Your task to perform on an android device: change the clock style Image 0: 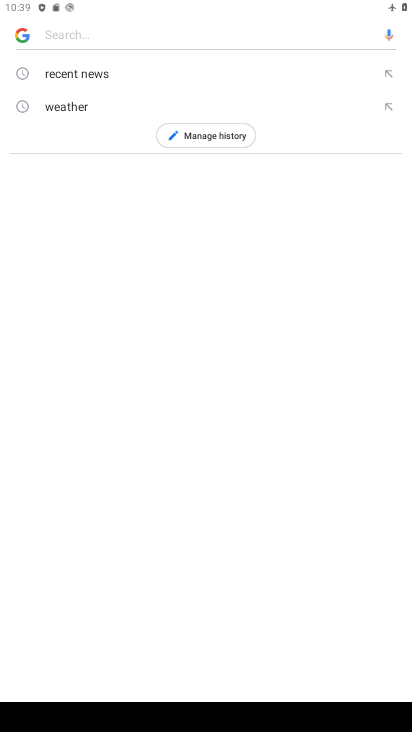
Step 0: press back button
Your task to perform on an android device: change the clock style Image 1: 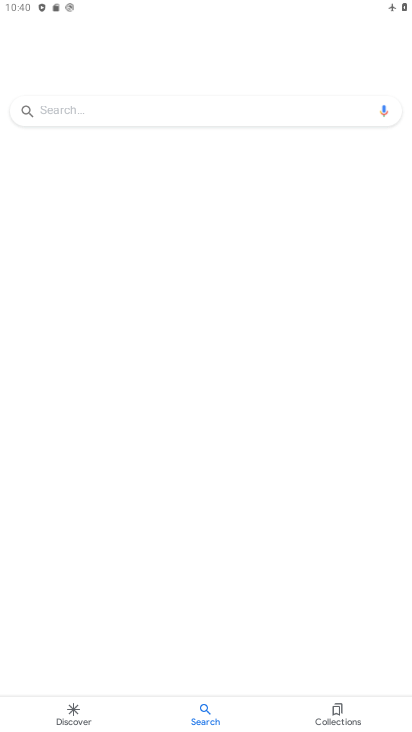
Step 1: press back button
Your task to perform on an android device: change the clock style Image 2: 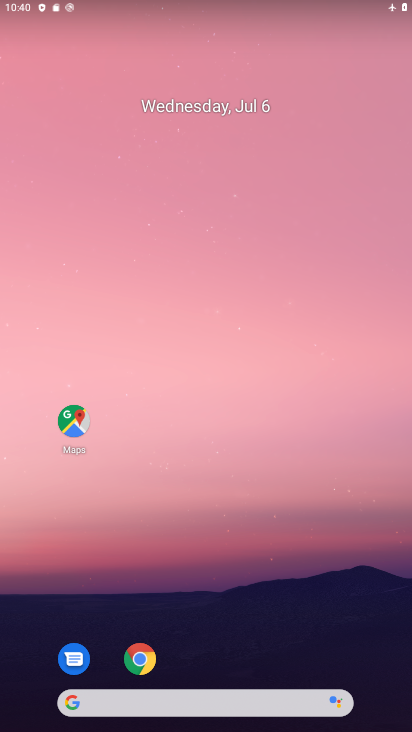
Step 2: drag from (205, 614) to (258, 67)
Your task to perform on an android device: change the clock style Image 3: 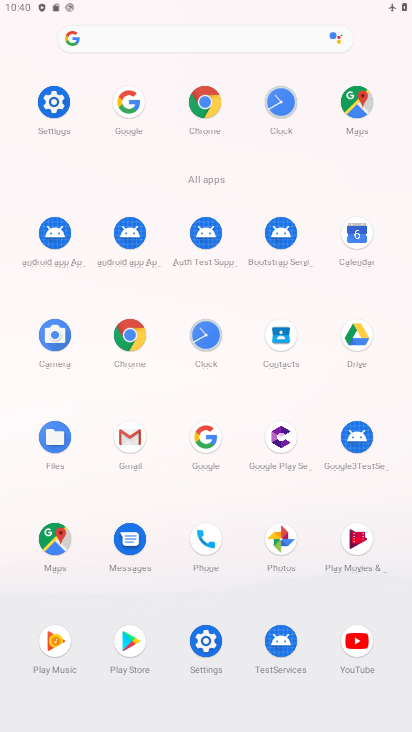
Step 3: click (214, 342)
Your task to perform on an android device: change the clock style Image 4: 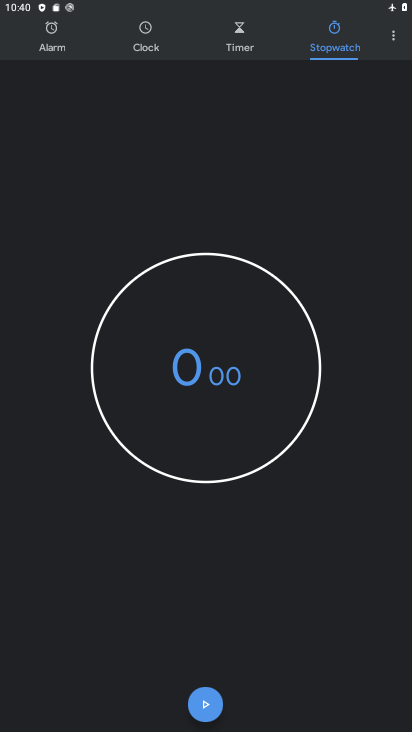
Step 4: click (151, 46)
Your task to perform on an android device: change the clock style Image 5: 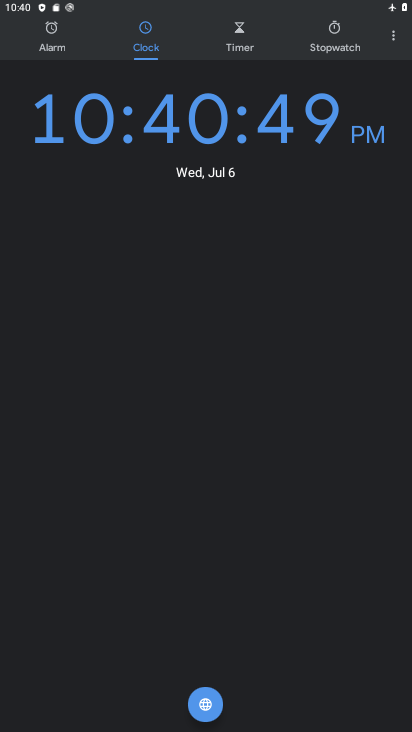
Step 5: click (394, 37)
Your task to perform on an android device: change the clock style Image 6: 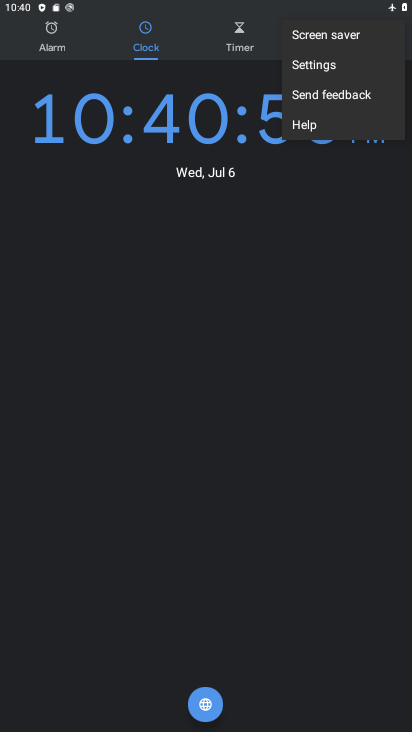
Step 6: click (318, 65)
Your task to perform on an android device: change the clock style Image 7: 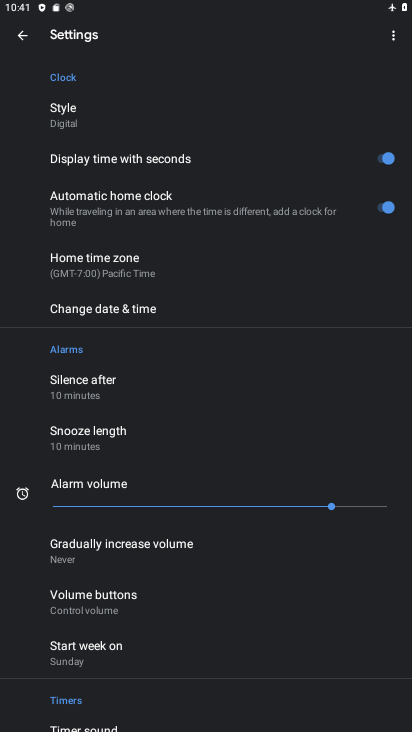
Step 7: click (81, 121)
Your task to perform on an android device: change the clock style Image 8: 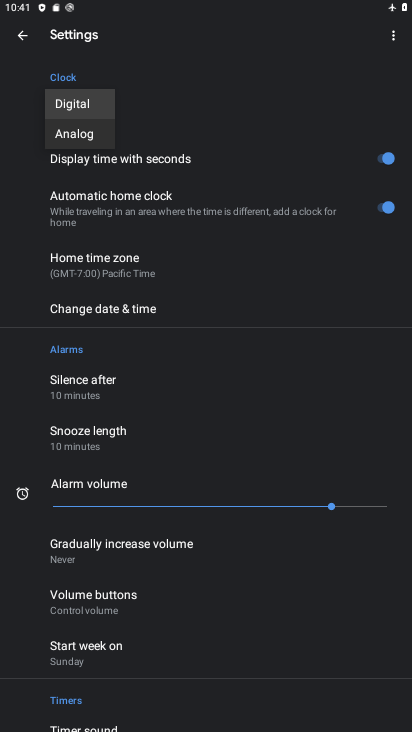
Step 8: click (79, 123)
Your task to perform on an android device: change the clock style Image 9: 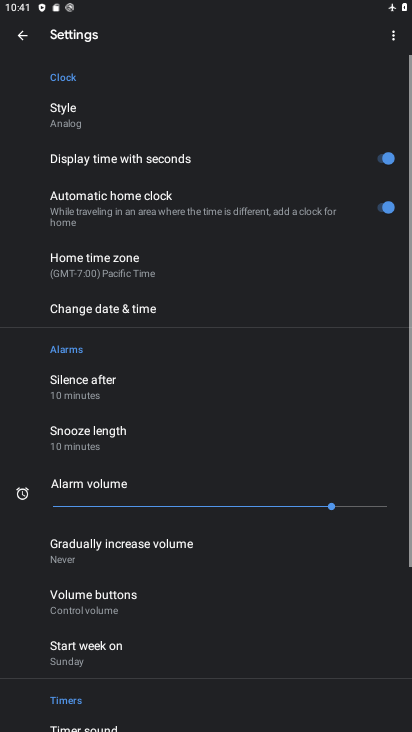
Step 9: task complete